Your task to perform on an android device: What's on my calendar tomorrow? Image 0: 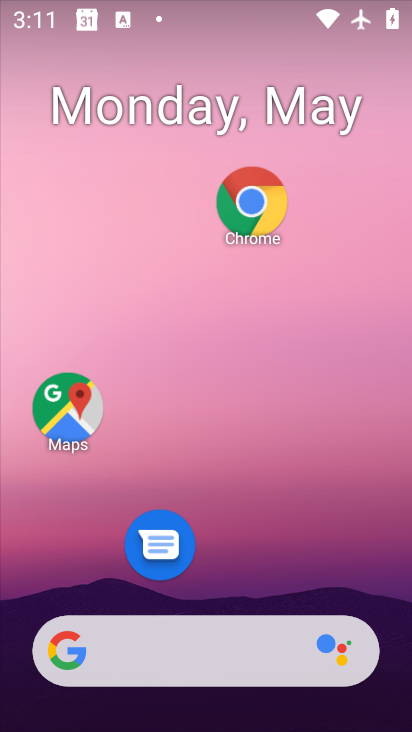
Step 0: drag from (206, 585) to (170, 199)
Your task to perform on an android device: What's on my calendar tomorrow? Image 1: 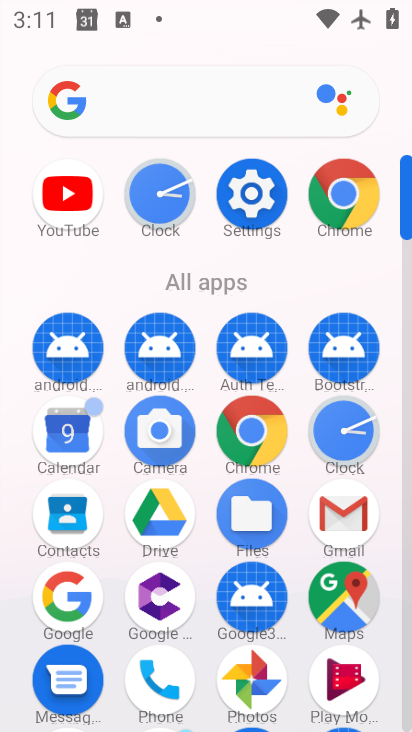
Step 1: drag from (205, 589) to (235, 355)
Your task to perform on an android device: What's on my calendar tomorrow? Image 2: 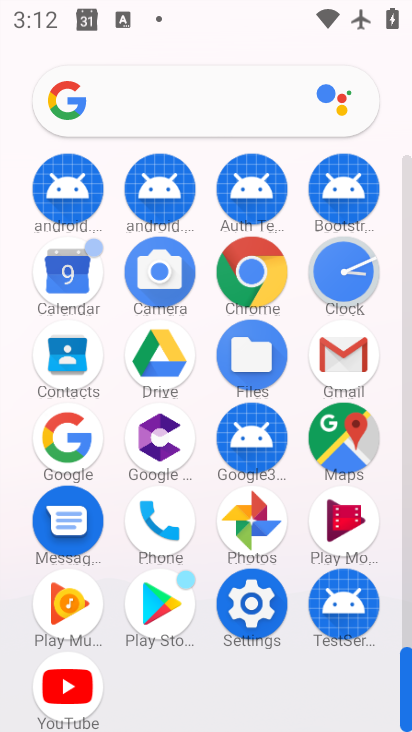
Step 2: click (56, 284)
Your task to perform on an android device: What's on my calendar tomorrow? Image 3: 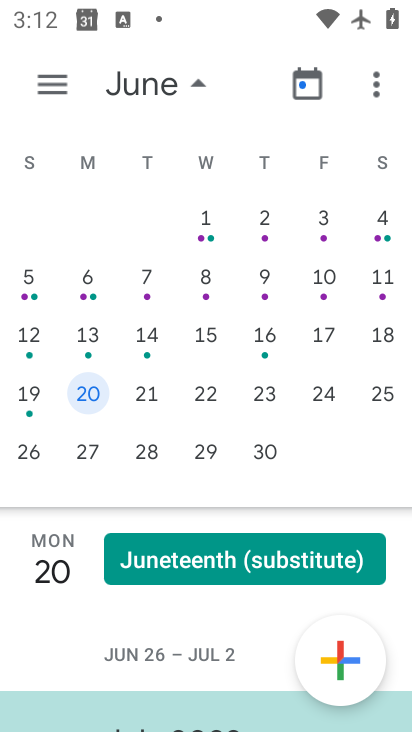
Step 3: drag from (88, 347) to (342, 360)
Your task to perform on an android device: What's on my calendar tomorrow? Image 4: 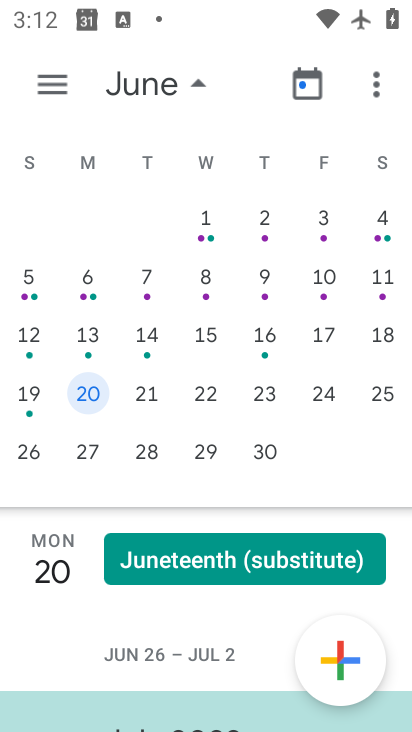
Step 4: drag from (58, 319) to (401, 307)
Your task to perform on an android device: What's on my calendar tomorrow? Image 5: 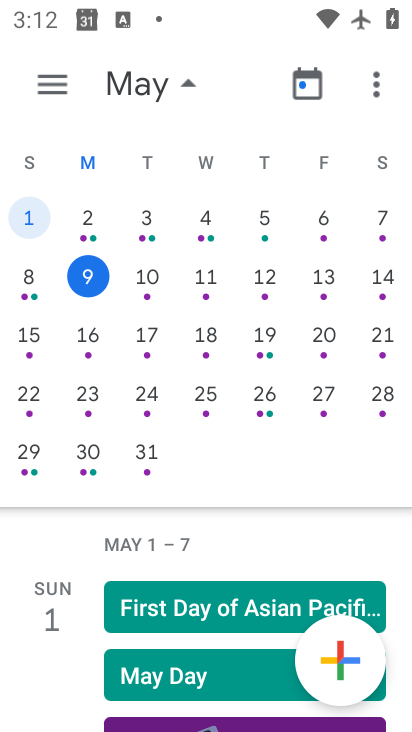
Step 5: click (136, 281)
Your task to perform on an android device: What's on my calendar tomorrow? Image 6: 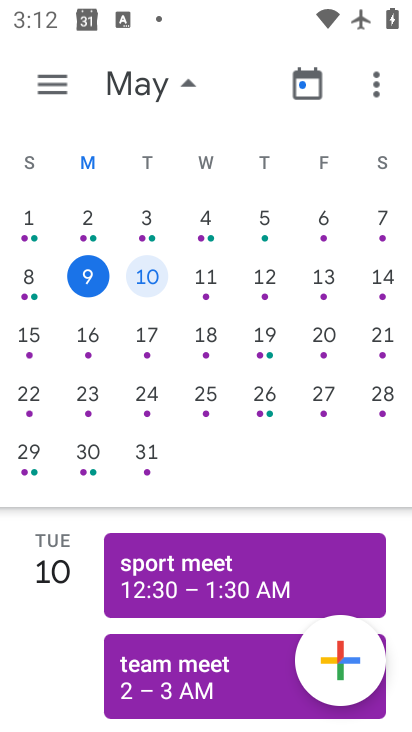
Step 6: task complete